Your task to perform on an android device: Go to battery settings Image 0: 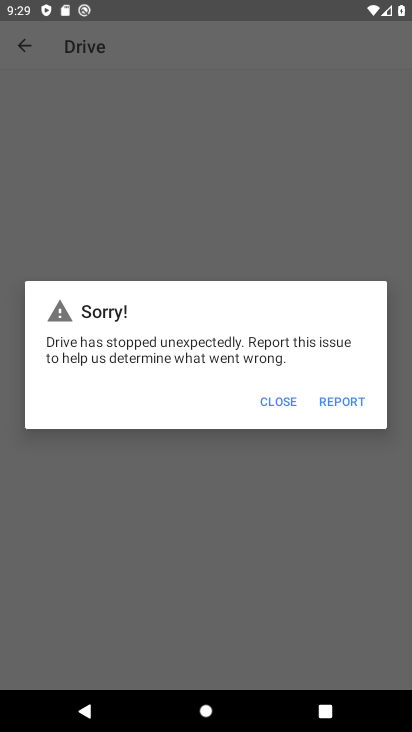
Step 0: click (274, 406)
Your task to perform on an android device: Go to battery settings Image 1: 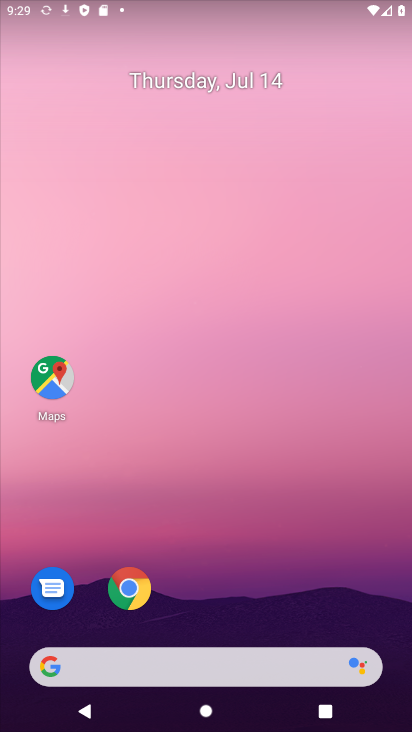
Step 1: drag from (216, 596) to (347, 0)
Your task to perform on an android device: Go to battery settings Image 2: 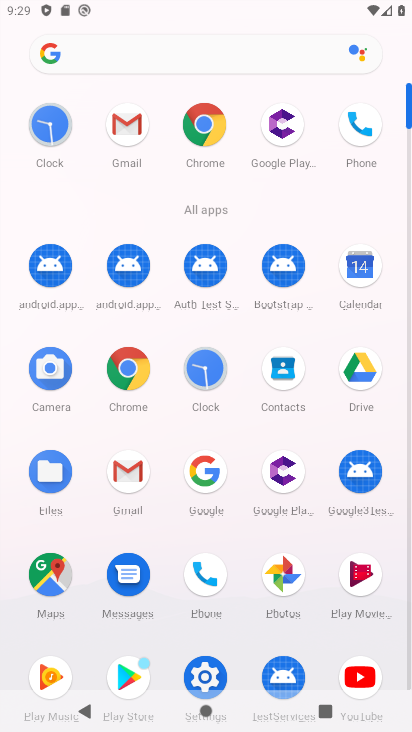
Step 2: click (209, 666)
Your task to perform on an android device: Go to battery settings Image 3: 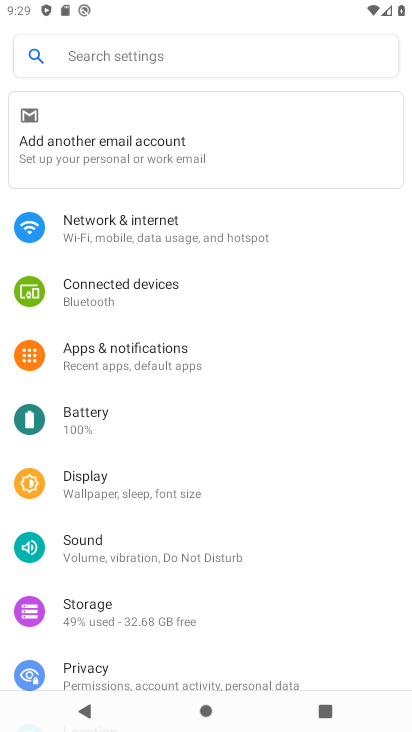
Step 3: click (107, 405)
Your task to perform on an android device: Go to battery settings Image 4: 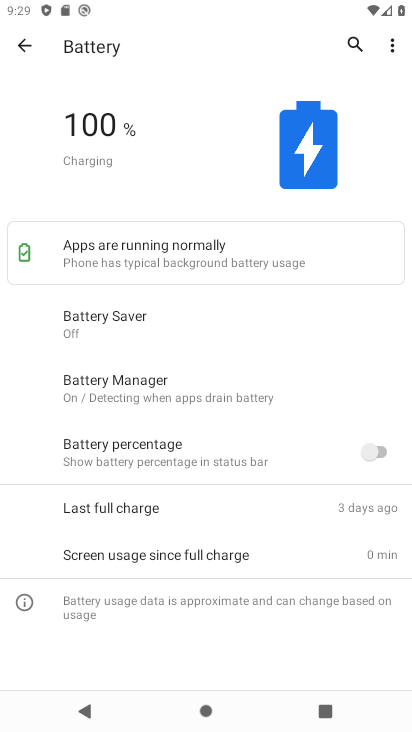
Step 4: task complete